Your task to perform on an android device: Open eBay Image 0: 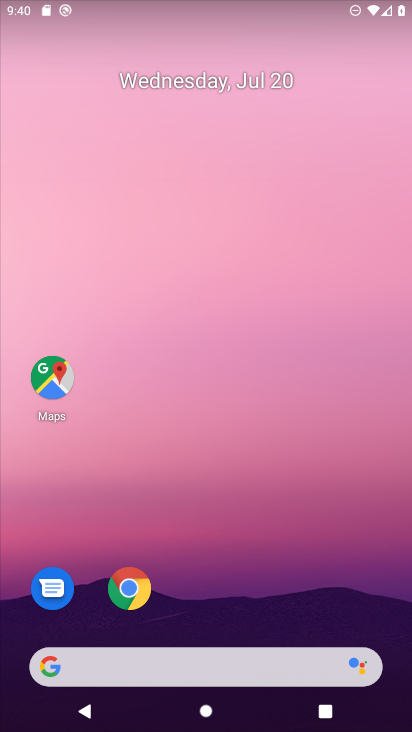
Step 0: click (131, 579)
Your task to perform on an android device: Open eBay Image 1: 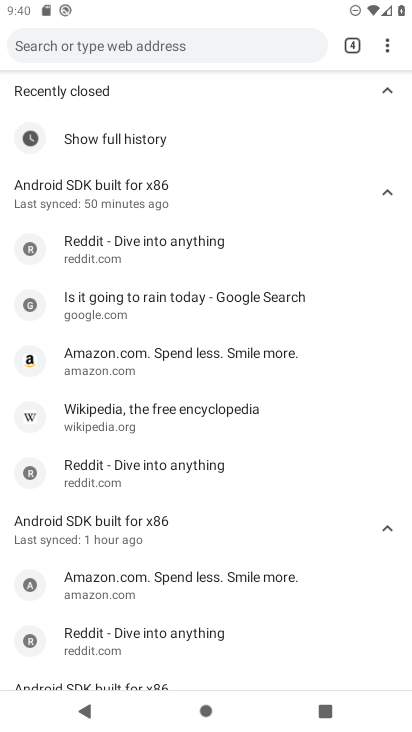
Step 1: click (363, 43)
Your task to perform on an android device: Open eBay Image 2: 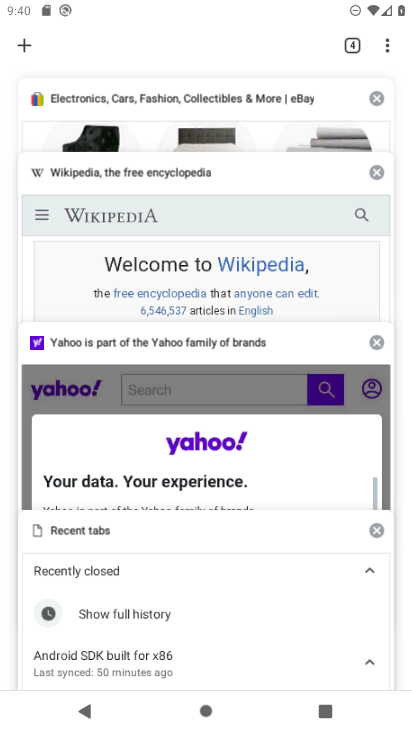
Step 2: click (163, 125)
Your task to perform on an android device: Open eBay Image 3: 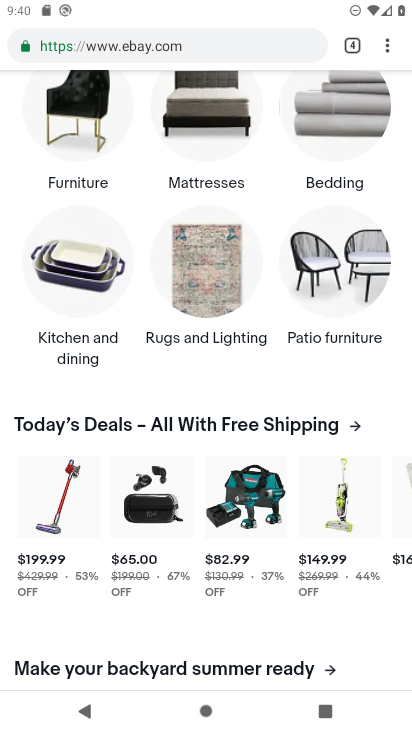
Step 3: task complete